Your task to perform on an android device: Go to Android settings Image 0: 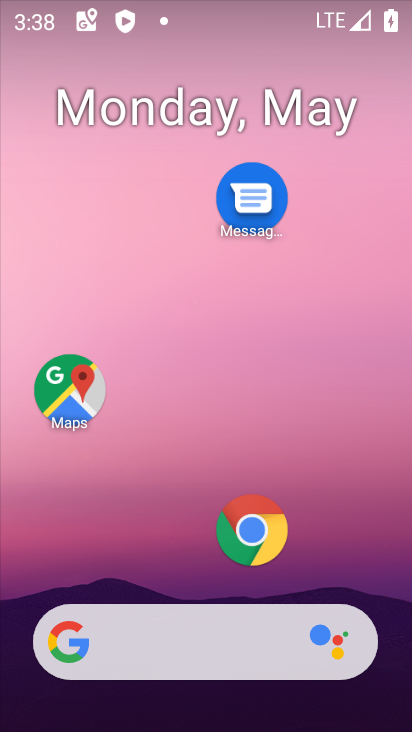
Step 0: drag from (204, 514) to (241, 3)
Your task to perform on an android device: Go to Android settings Image 1: 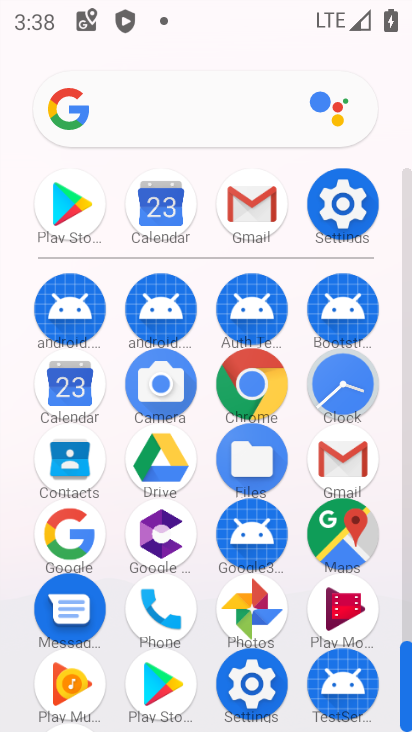
Step 1: click (329, 213)
Your task to perform on an android device: Go to Android settings Image 2: 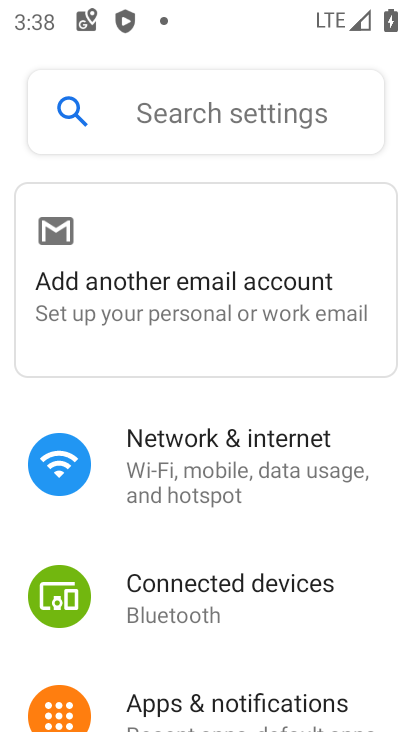
Step 2: drag from (234, 572) to (297, 103)
Your task to perform on an android device: Go to Android settings Image 3: 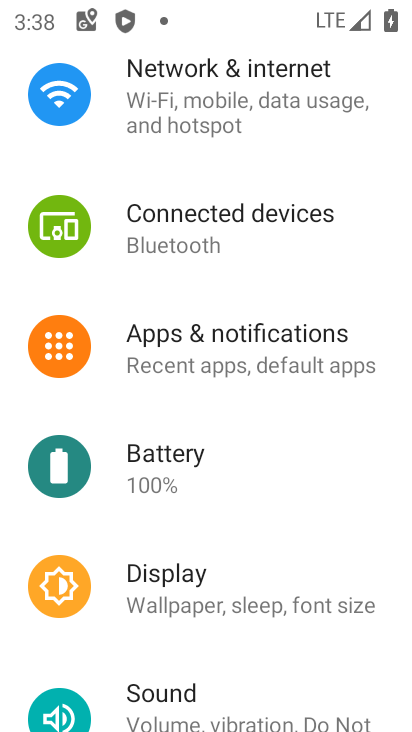
Step 3: drag from (173, 629) to (273, 151)
Your task to perform on an android device: Go to Android settings Image 4: 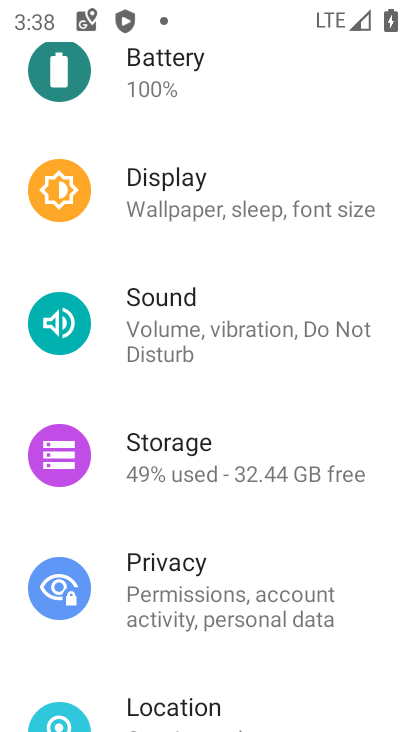
Step 4: drag from (218, 670) to (311, 24)
Your task to perform on an android device: Go to Android settings Image 5: 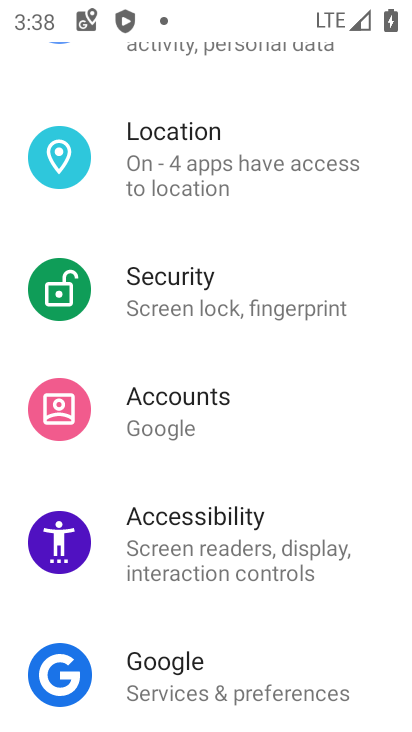
Step 5: drag from (200, 713) to (280, 11)
Your task to perform on an android device: Go to Android settings Image 6: 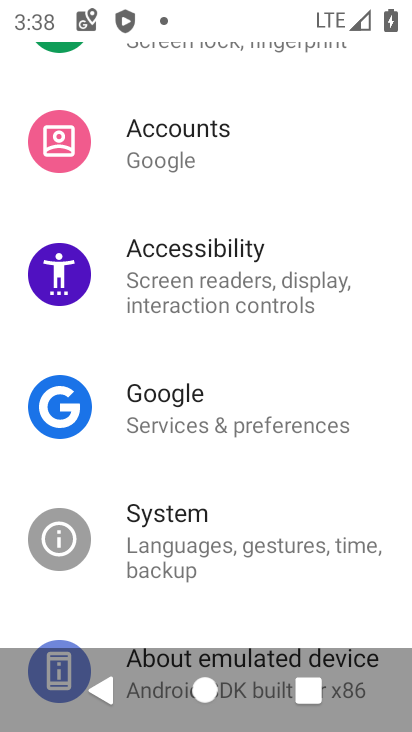
Step 6: drag from (203, 612) to (307, 5)
Your task to perform on an android device: Go to Android settings Image 7: 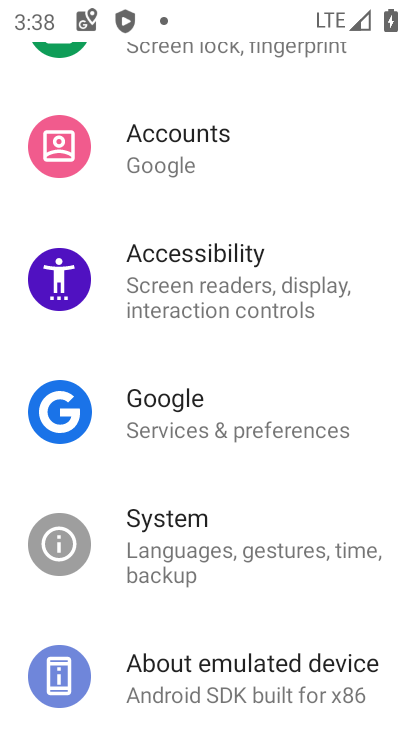
Step 7: click (197, 676)
Your task to perform on an android device: Go to Android settings Image 8: 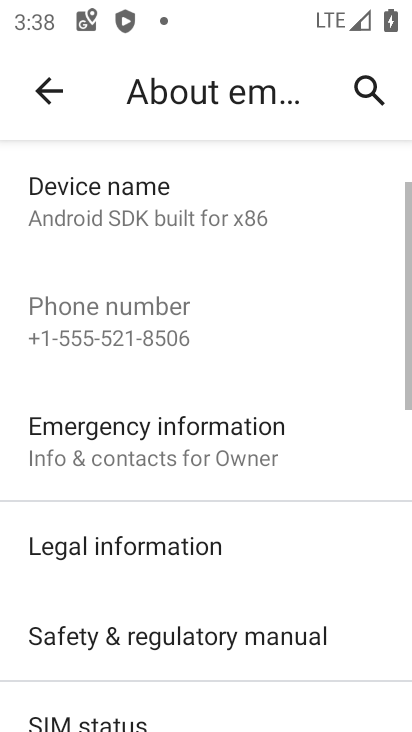
Step 8: drag from (197, 676) to (233, 335)
Your task to perform on an android device: Go to Android settings Image 9: 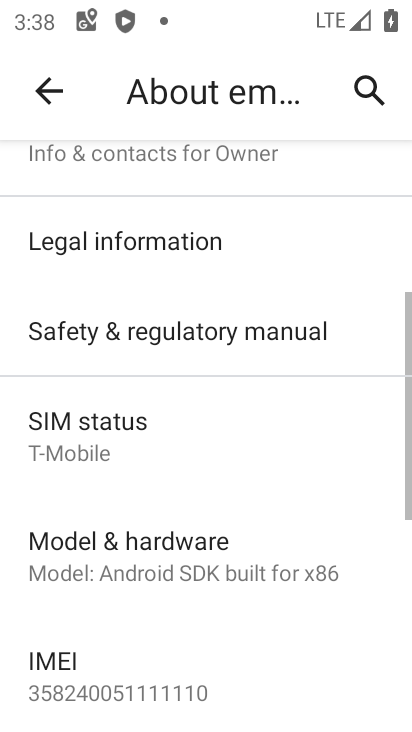
Step 9: drag from (132, 661) to (226, 265)
Your task to perform on an android device: Go to Android settings Image 10: 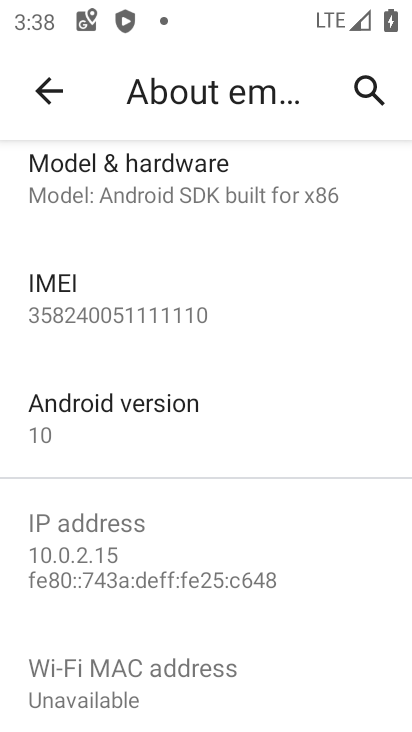
Step 10: click (149, 396)
Your task to perform on an android device: Go to Android settings Image 11: 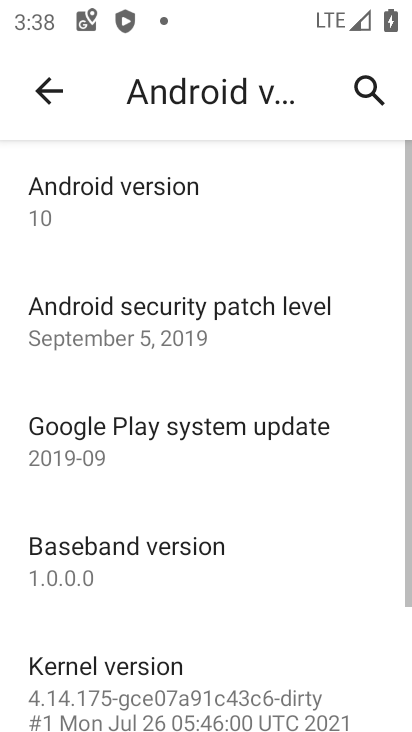
Step 11: task complete